Your task to perform on an android device: clear history in the chrome app Image 0: 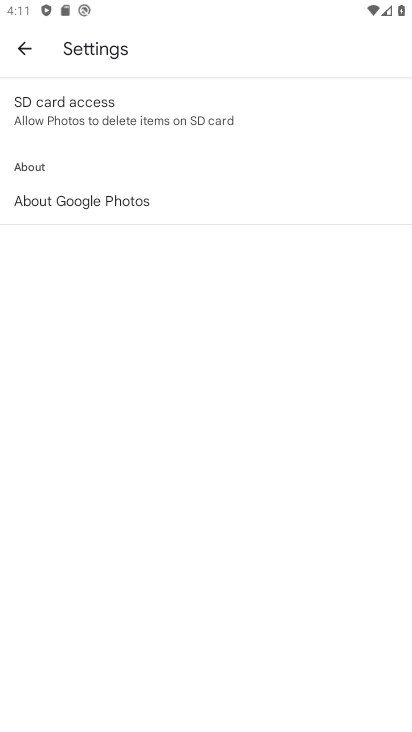
Step 0: press back button
Your task to perform on an android device: clear history in the chrome app Image 1: 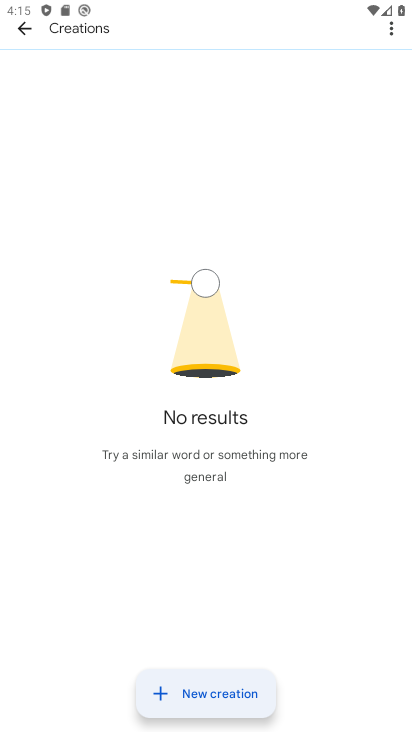
Step 1: press home button
Your task to perform on an android device: clear history in the chrome app Image 2: 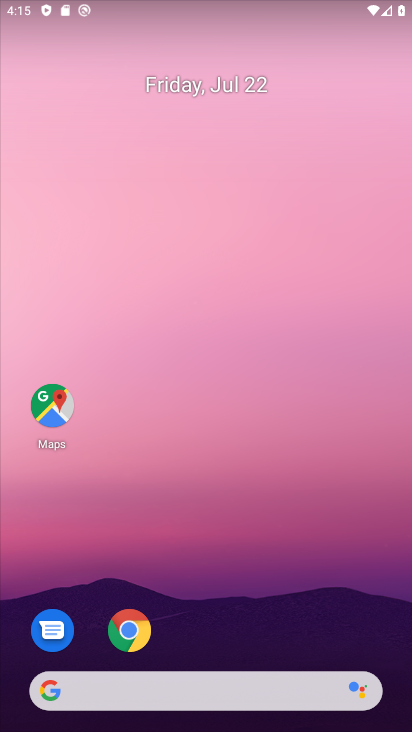
Step 2: click (133, 640)
Your task to perform on an android device: clear history in the chrome app Image 3: 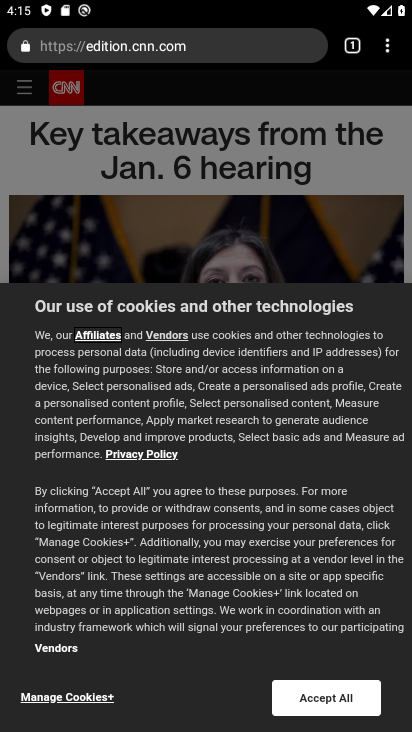
Step 3: click (390, 49)
Your task to perform on an android device: clear history in the chrome app Image 4: 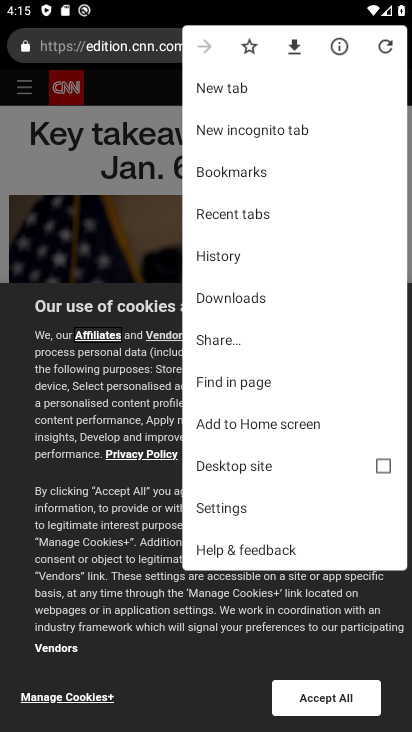
Step 4: click (231, 259)
Your task to perform on an android device: clear history in the chrome app Image 5: 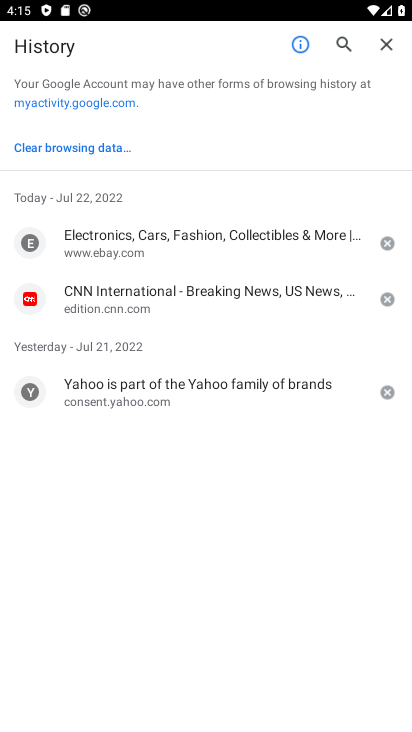
Step 5: click (76, 142)
Your task to perform on an android device: clear history in the chrome app Image 6: 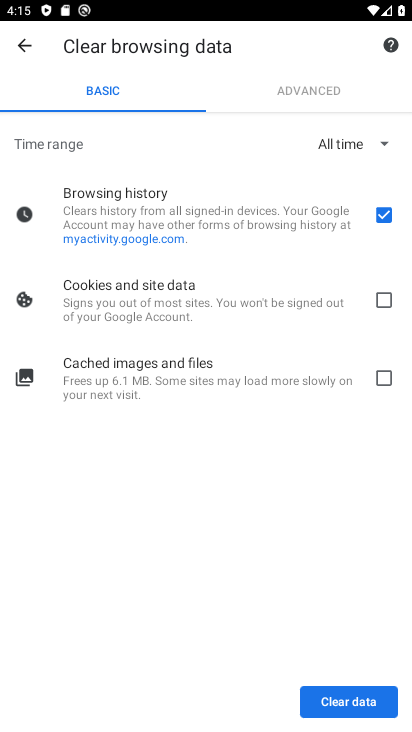
Step 6: click (328, 692)
Your task to perform on an android device: clear history in the chrome app Image 7: 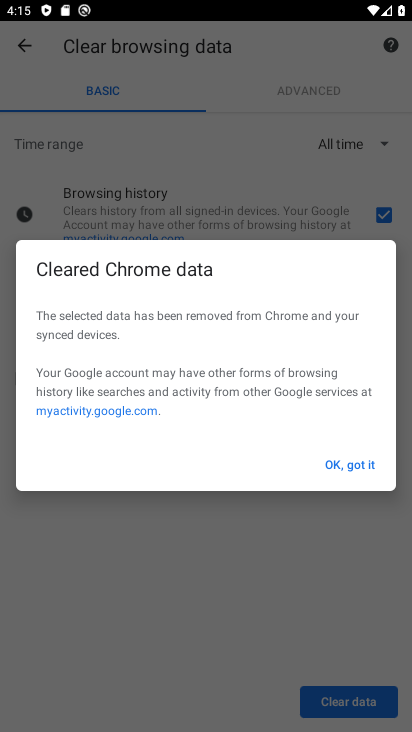
Step 7: click (358, 461)
Your task to perform on an android device: clear history in the chrome app Image 8: 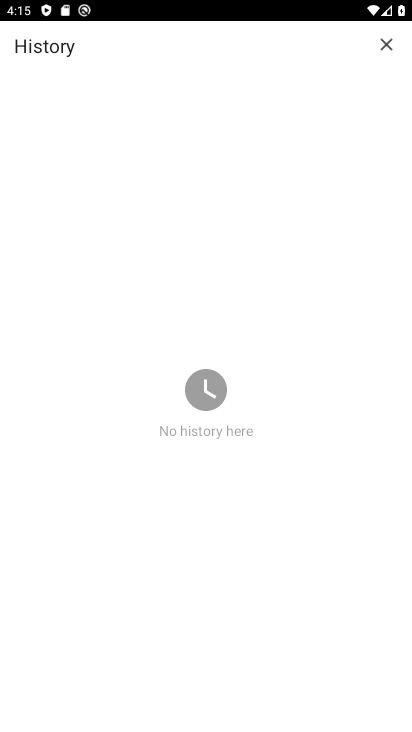
Step 8: task complete